Your task to perform on an android device: Go to eBay Image 0: 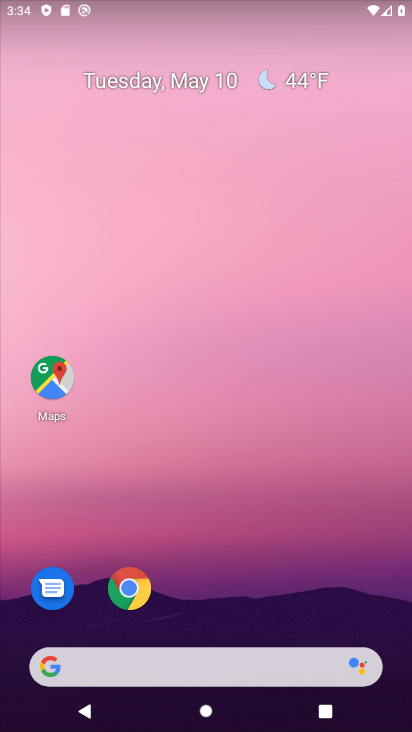
Step 0: click (142, 579)
Your task to perform on an android device: Go to eBay Image 1: 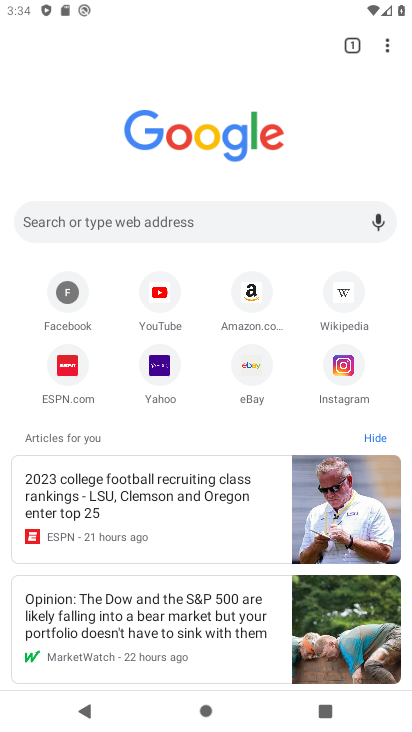
Step 1: click (256, 378)
Your task to perform on an android device: Go to eBay Image 2: 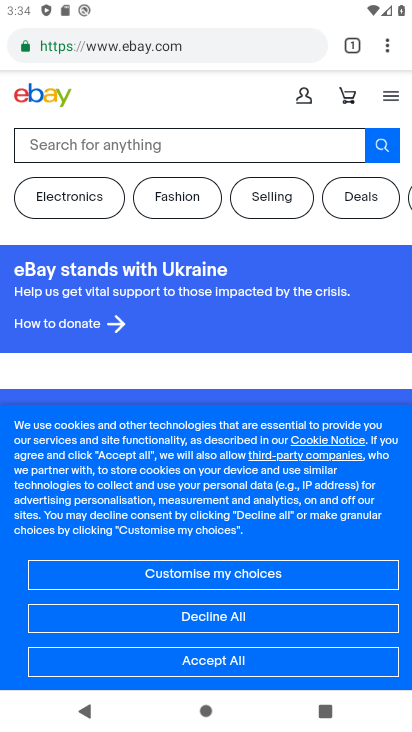
Step 2: click (231, 625)
Your task to perform on an android device: Go to eBay Image 3: 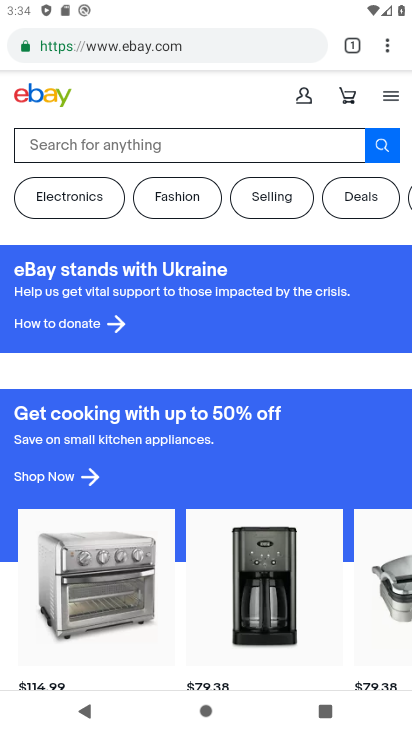
Step 3: task complete